Your task to perform on an android device: change the clock style Image 0: 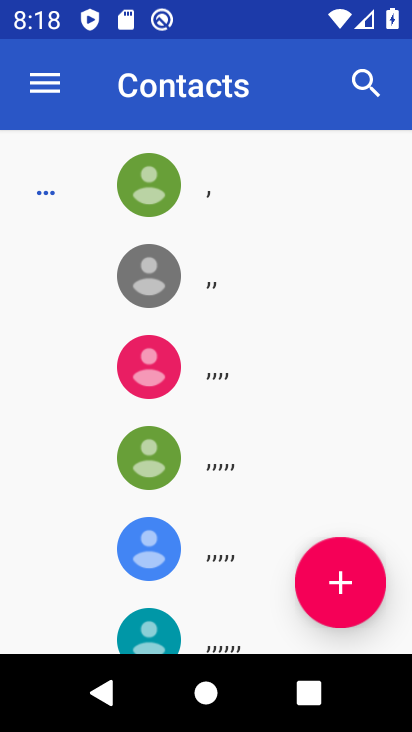
Step 0: press home button
Your task to perform on an android device: change the clock style Image 1: 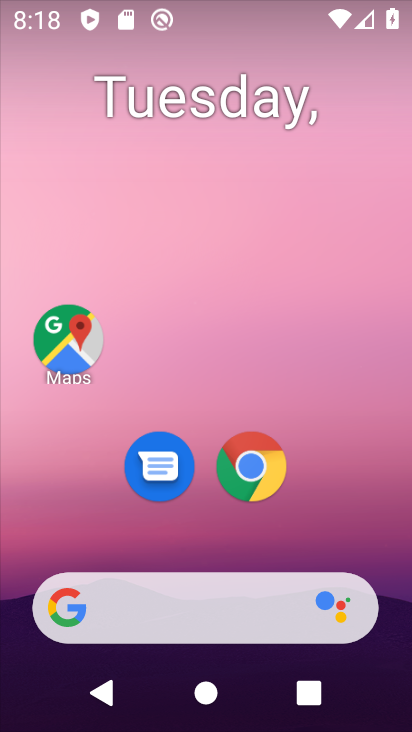
Step 1: drag from (382, 531) to (331, 56)
Your task to perform on an android device: change the clock style Image 2: 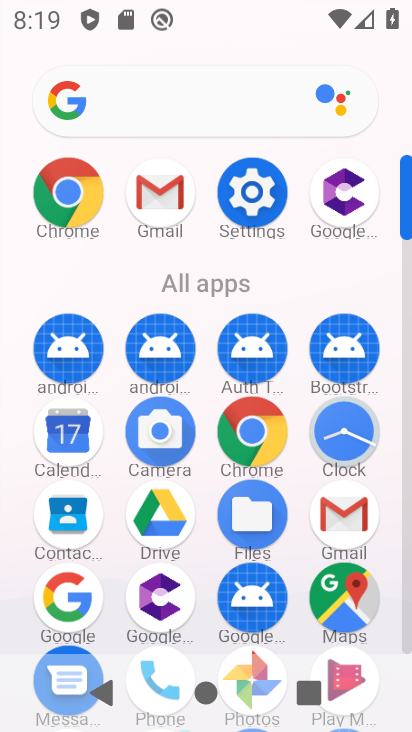
Step 2: click (354, 431)
Your task to perform on an android device: change the clock style Image 3: 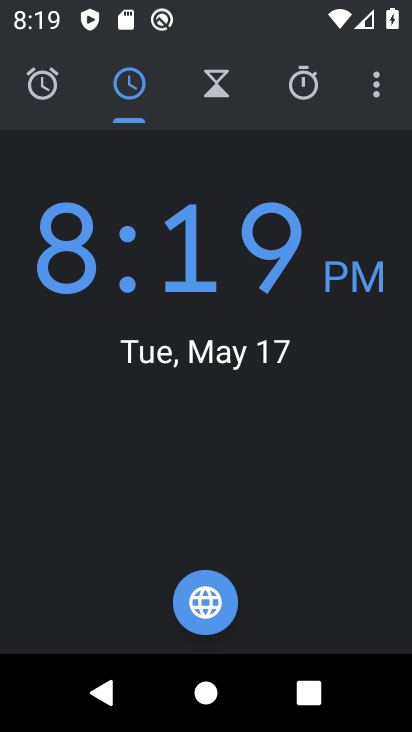
Step 3: click (378, 84)
Your task to perform on an android device: change the clock style Image 4: 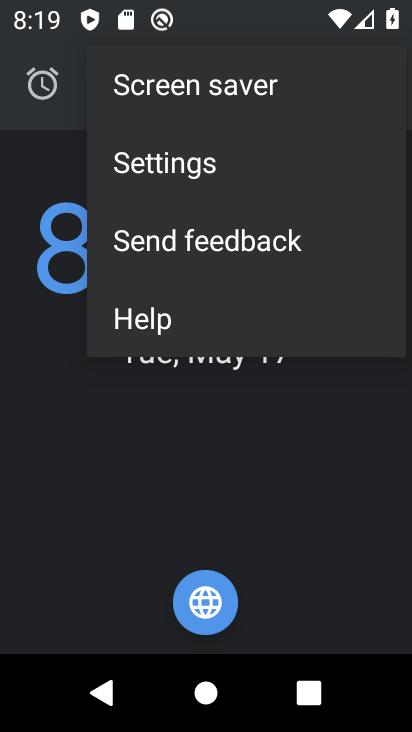
Step 4: click (276, 164)
Your task to perform on an android device: change the clock style Image 5: 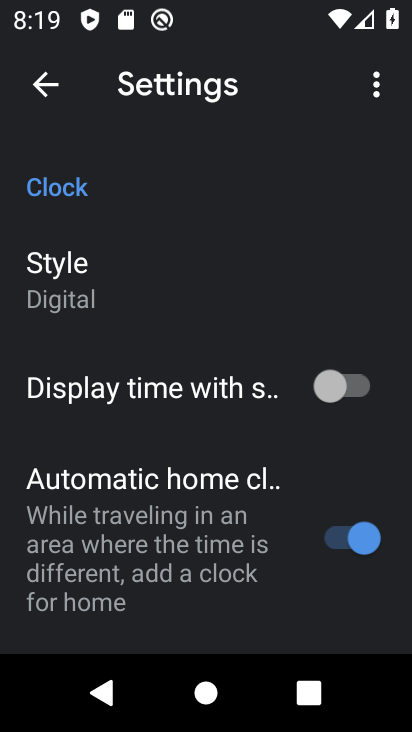
Step 5: click (246, 281)
Your task to perform on an android device: change the clock style Image 6: 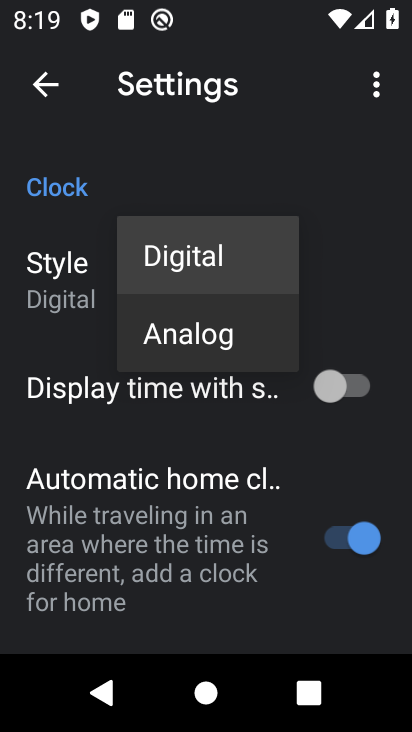
Step 6: click (255, 363)
Your task to perform on an android device: change the clock style Image 7: 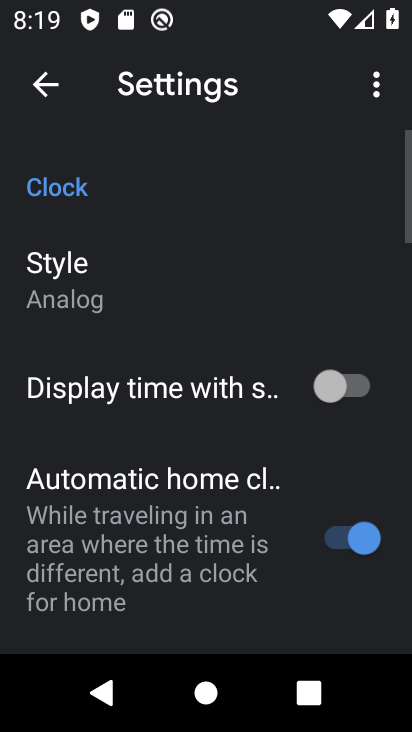
Step 7: task complete